Your task to perform on an android device: Do I have any events today? Image 0: 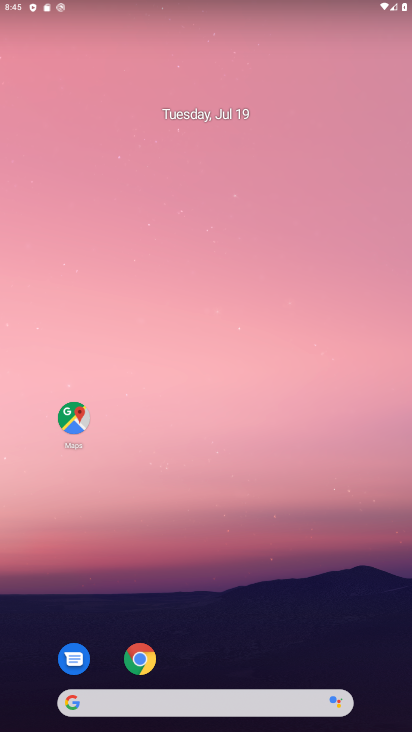
Step 0: drag from (204, 654) to (399, 10)
Your task to perform on an android device: Do I have any events today? Image 1: 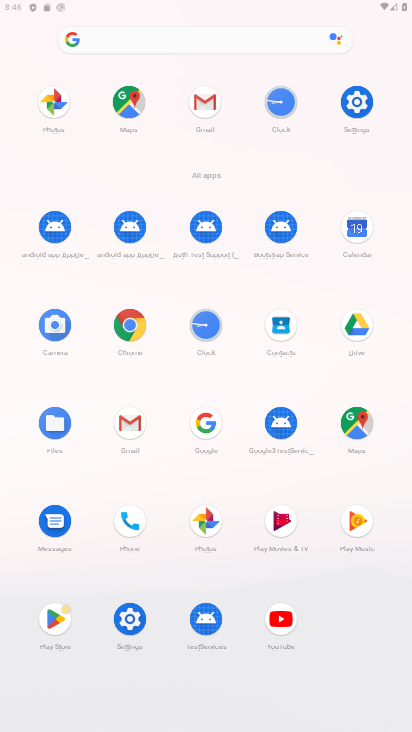
Step 1: drag from (220, 636) to (359, 0)
Your task to perform on an android device: Do I have any events today? Image 2: 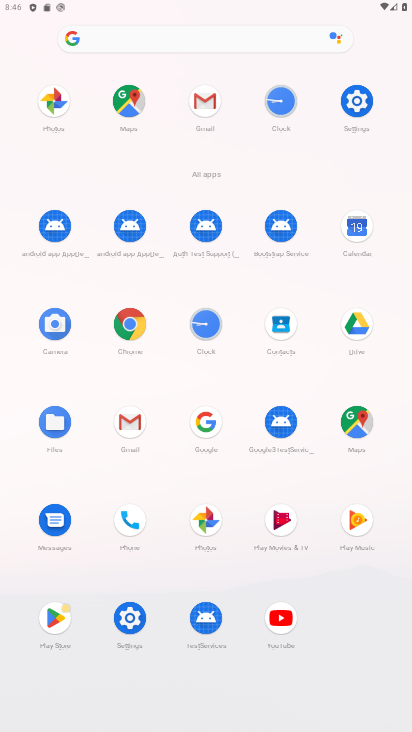
Step 2: click (357, 219)
Your task to perform on an android device: Do I have any events today? Image 3: 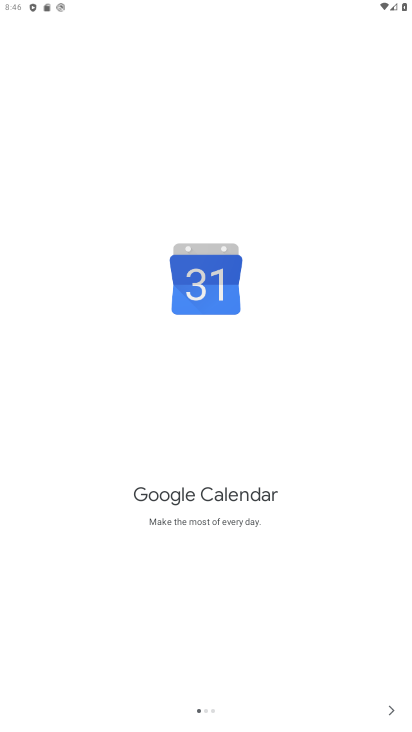
Step 3: click (389, 721)
Your task to perform on an android device: Do I have any events today? Image 4: 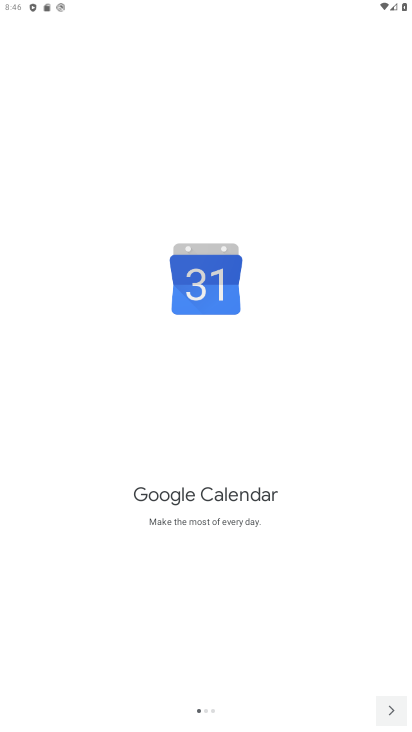
Step 4: click (391, 713)
Your task to perform on an android device: Do I have any events today? Image 5: 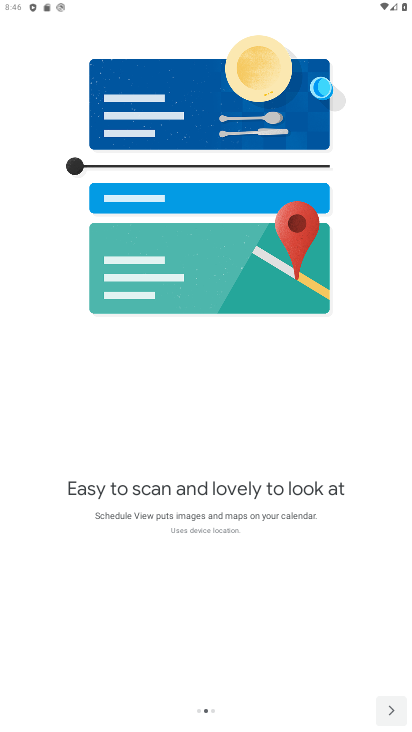
Step 5: click (391, 712)
Your task to perform on an android device: Do I have any events today? Image 6: 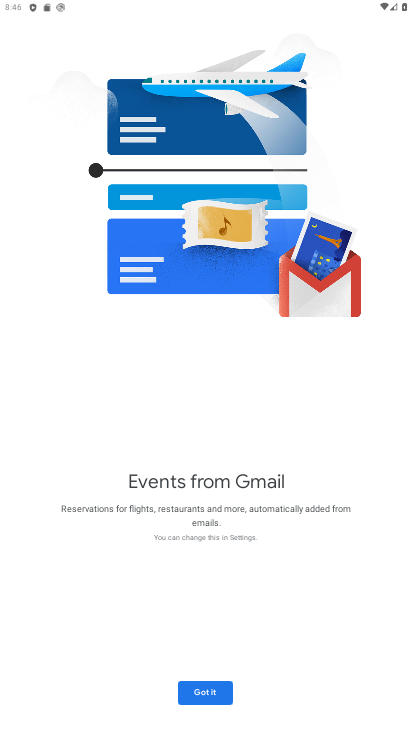
Step 6: click (391, 711)
Your task to perform on an android device: Do I have any events today? Image 7: 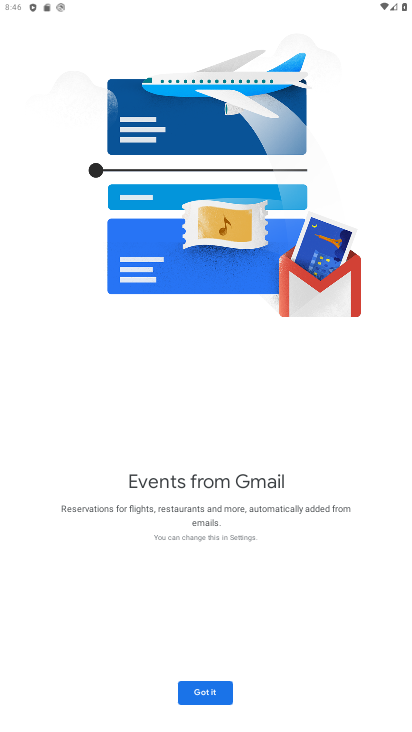
Step 7: click (392, 707)
Your task to perform on an android device: Do I have any events today? Image 8: 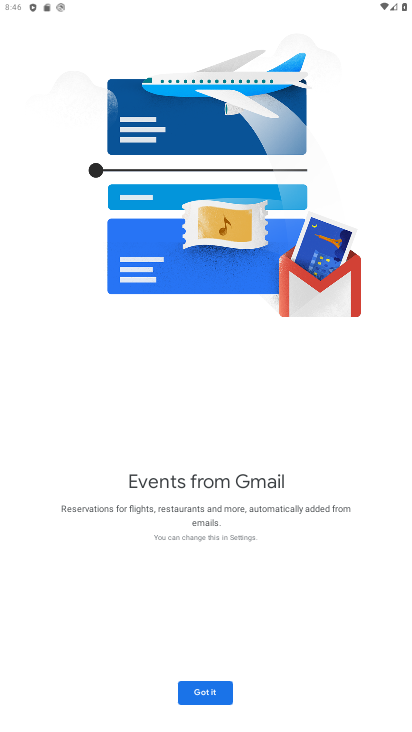
Step 8: click (219, 688)
Your task to perform on an android device: Do I have any events today? Image 9: 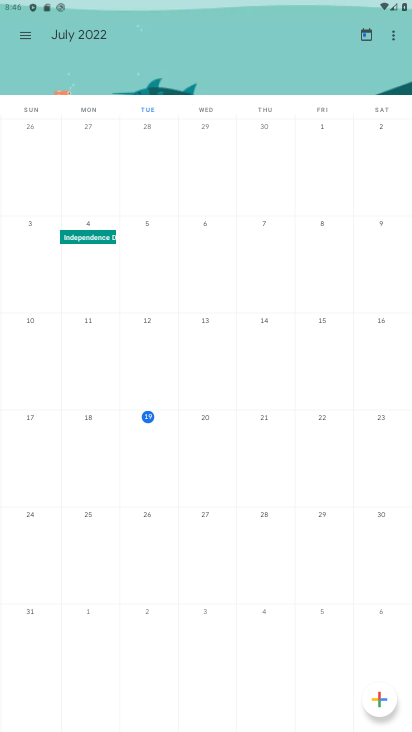
Step 9: click (354, 41)
Your task to perform on an android device: Do I have any events today? Image 10: 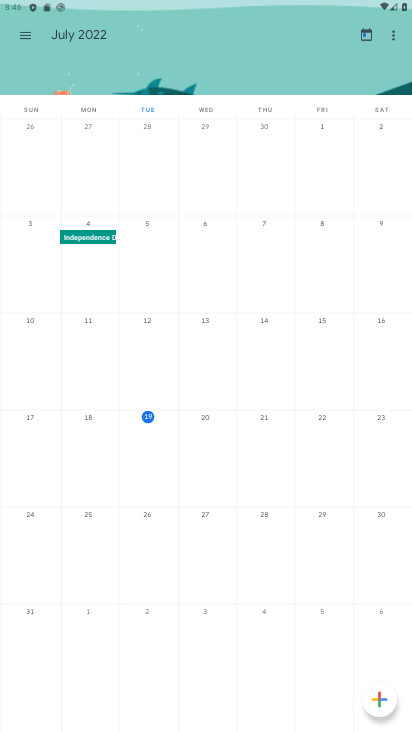
Step 10: click (361, 35)
Your task to perform on an android device: Do I have any events today? Image 11: 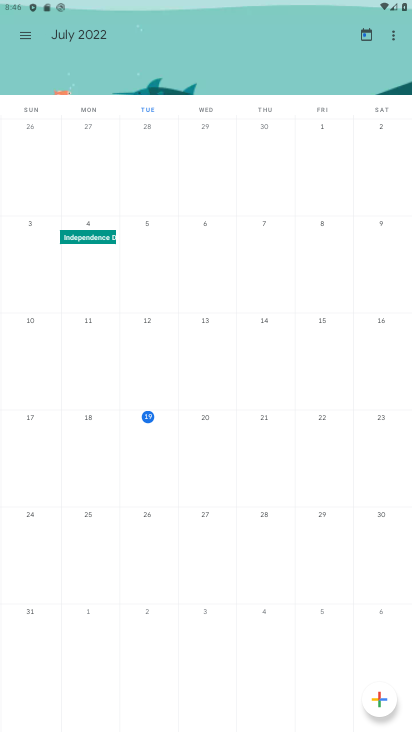
Step 11: task complete